Your task to perform on an android device: Open the web browser Image 0: 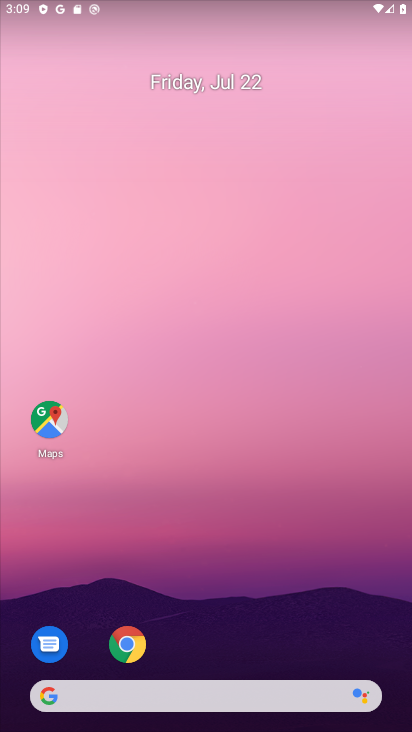
Step 0: click (126, 640)
Your task to perform on an android device: Open the web browser Image 1: 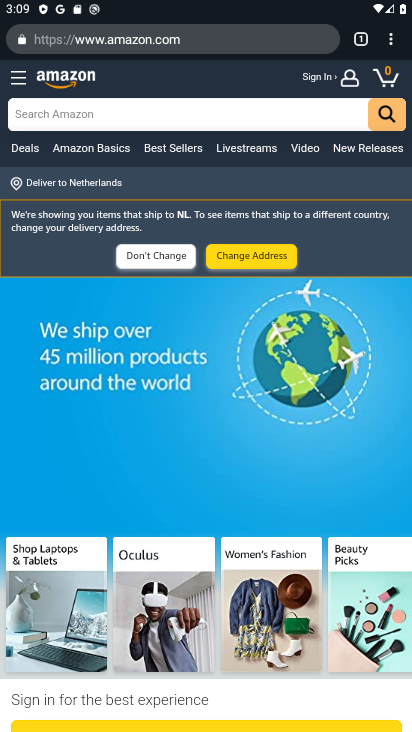
Step 1: task complete